Your task to perform on an android device: refresh tabs in the chrome app Image 0: 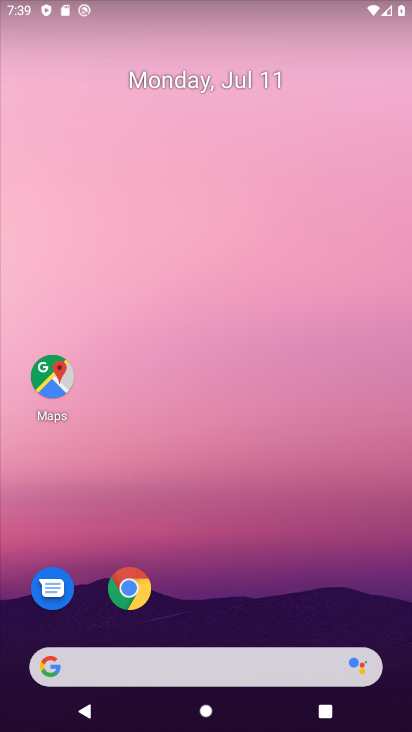
Step 0: click (129, 587)
Your task to perform on an android device: refresh tabs in the chrome app Image 1: 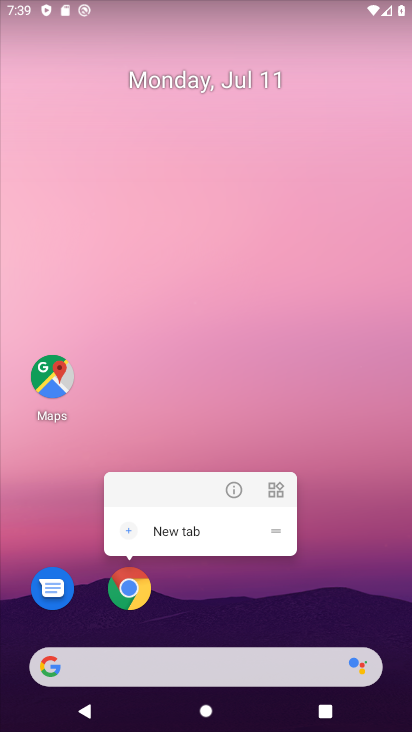
Step 1: click (129, 587)
Your task to perform on an android device: refresh tabs in the chrome app Image 2: 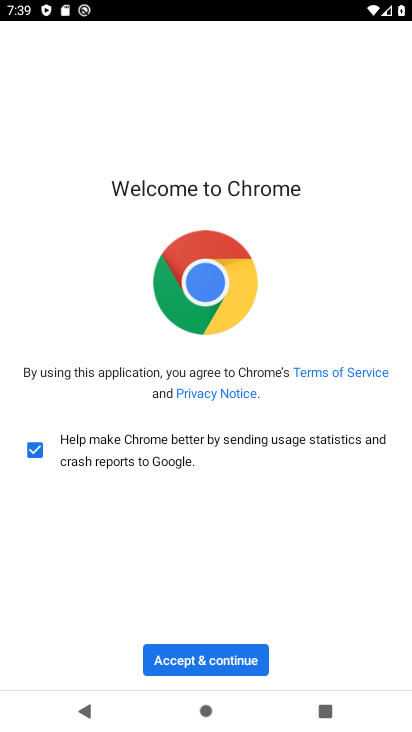
Step 2: click (193, 660)
Your task to perform on an android device: refresh tabs in the chrome app Image 3: 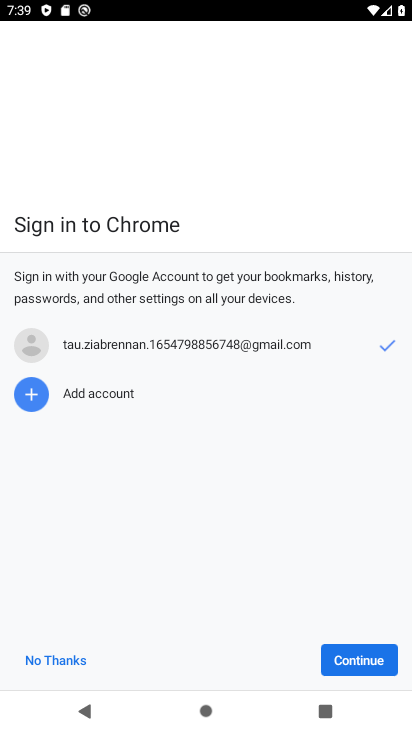
Step 3: click (359, 664)
Your task to perform on an android device: refresh tabs in the chrome app Image 4: 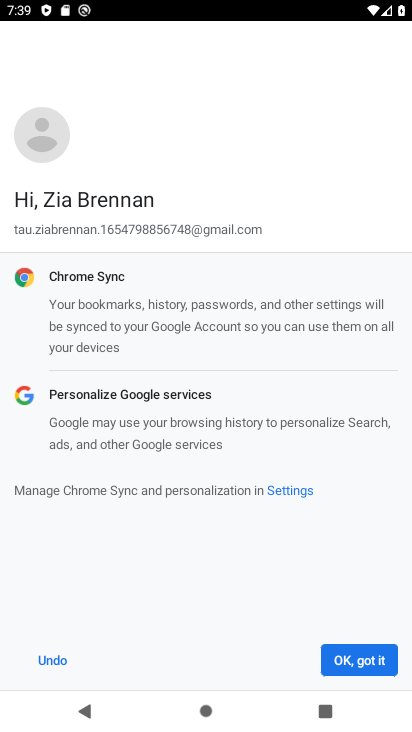
Step 4: click (359, 664)
Your task to perform on an android device: refresh tabs in the chrome app Image 5: 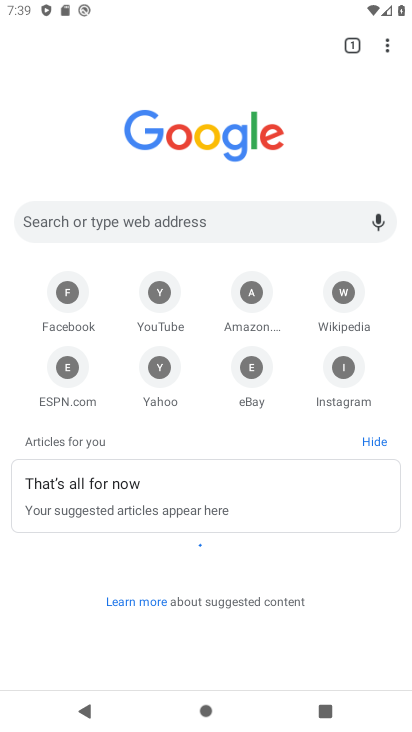
Step 5: click (379, 40)
Your task to perform on an android device: refresh tabs in the chrome app Image 6: 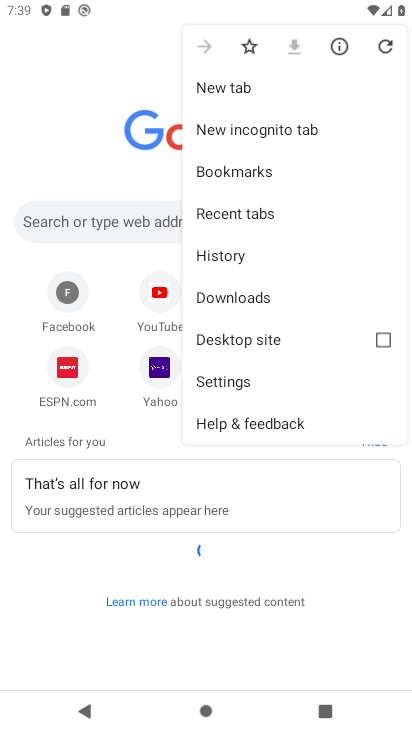
Step 6: click (384, 47)
Your task to perform on an android device: refresh tabs in the chrome app Image 7: 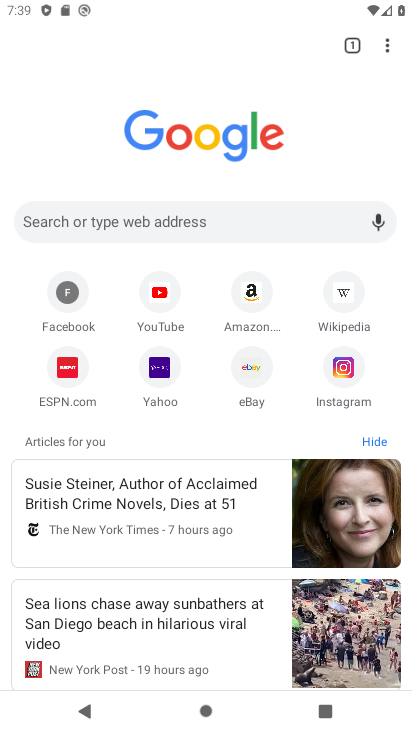
Step 7: task complete